Your task to perform on an android device: remove spam from my inbox in the gmail app Image 0: 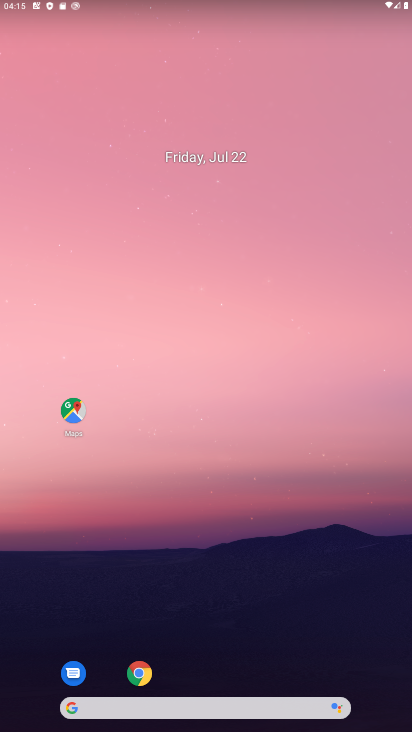
Step 0: press home button
Your task to perform on an android device: remove spam from my inbox in the gmail app Image 1: 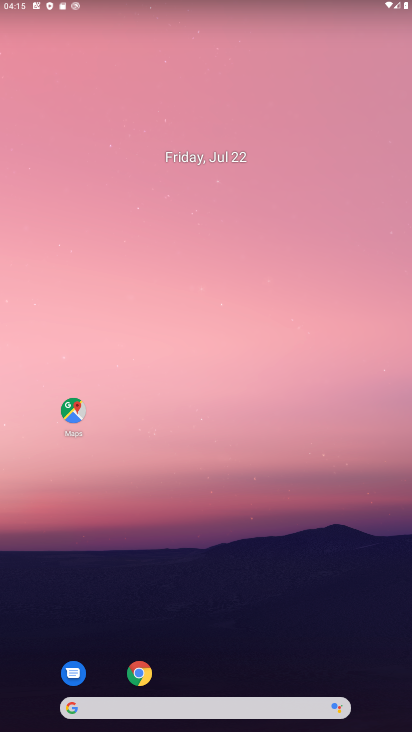
Step 1: drag from (205, 678) to (225, 55)
Your task to perform on an android device: remove spam from my inbox in the gmail app Image 2: 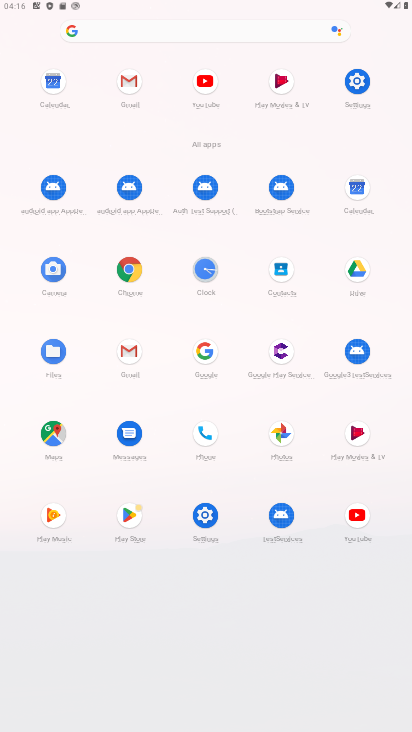
Step 2: click (126, 344)
Your task to perform on an android device: remove spam from my inbox in the gmail app Image 3: 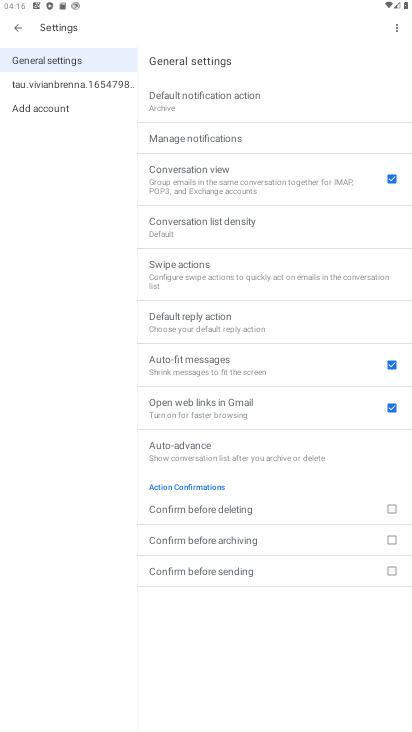
Step 3: click (84, 79)
Your task to perform on an android device: remove spam from my inbox in the gmail app Image 4: 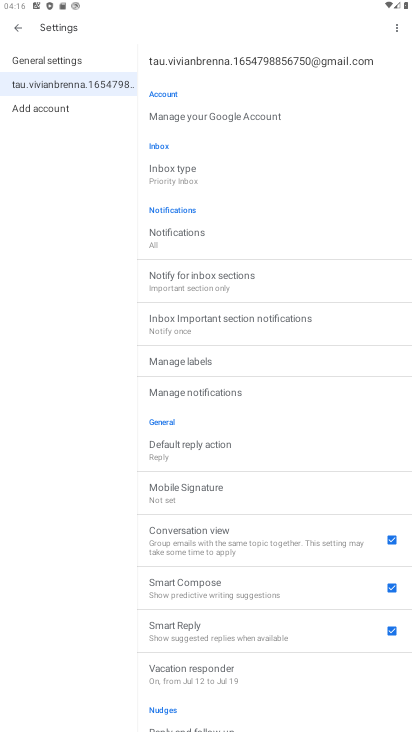
Step 4: click (12, 23)
Your task to perform on an android device: remove spam from my inbox in the gmail app Image 5: 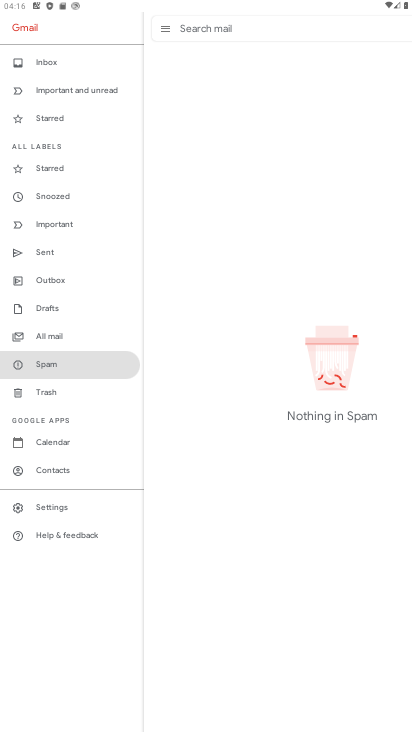
Step 5: task complete